Your task to perform on an android device: Show me recent news Image 0: 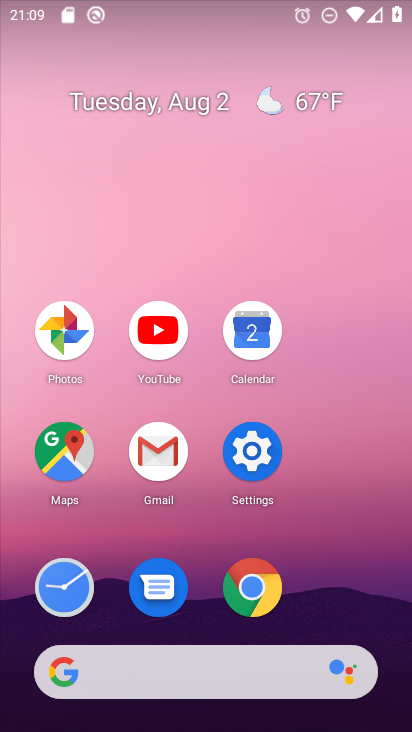
Step 0: drag from (17, 205) to (405, 279)
Your task to perform on an android device: Show me recent news Image 1: 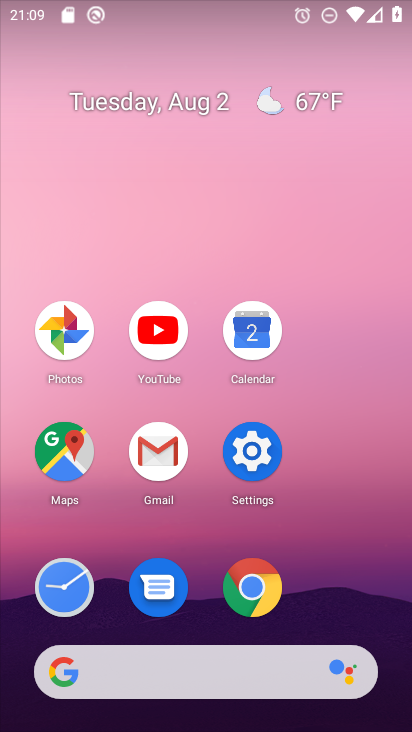
Step 1: task complete